Your task to perform on an android device: Search for vegetarian restaurants on Maps Image 0: 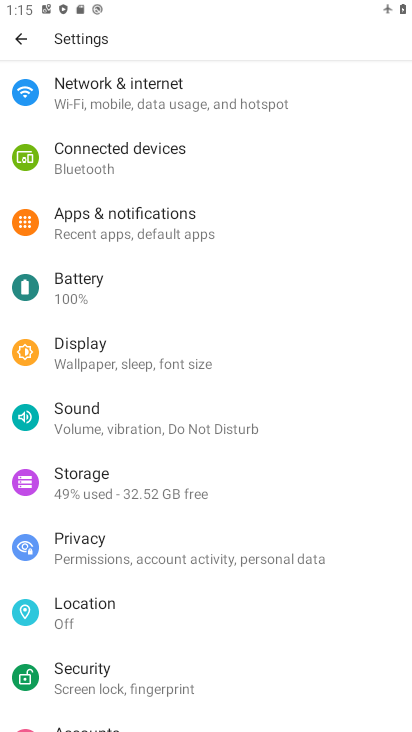
Step 0: press home button
Your task to perform on an android device: Search for vegetarian restaurants on Maps Image 1: 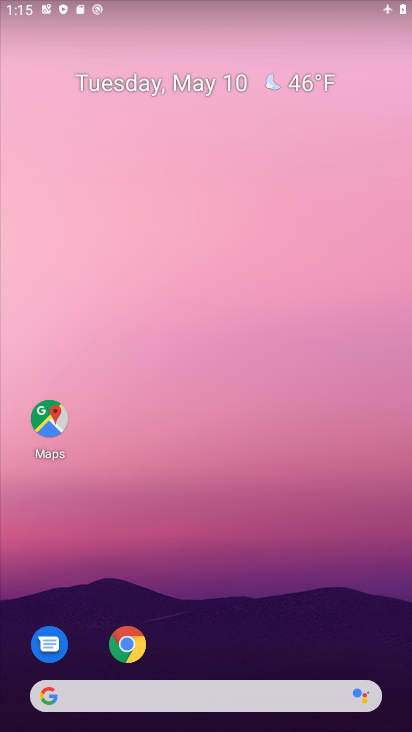
Step 1: drag from (300, 628) to (256, 138)
Your task to perform on an android device: Search for vegetarian restaurants on Maps Image 2: 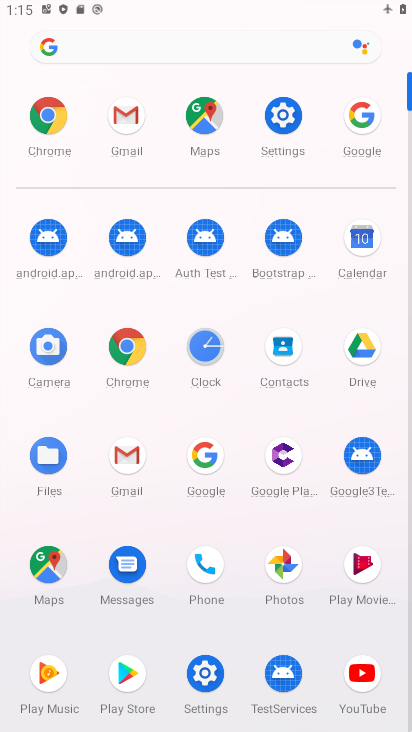
Step 2: drag from (164, 308) to (160, 138)
Your task to perform on an android device: Search for vegetarian restaurants on Maps Image 3: 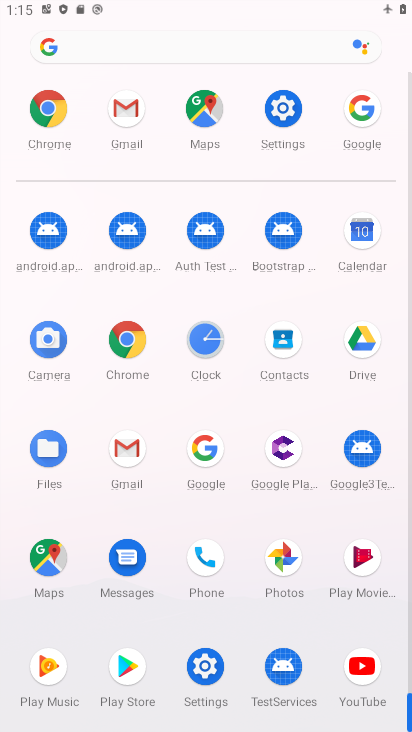
Step 3: click (58, 555)
Your task to perform on an android device: Search for vegetarian restaurants on Maps Image 4: 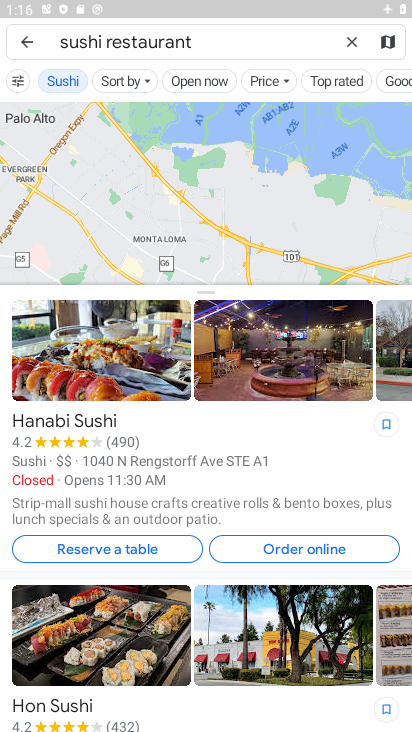
Step 4: click (361, 43)
Your task to perform on an android device: Search for vegetarian restaurants on Maps Image 5: 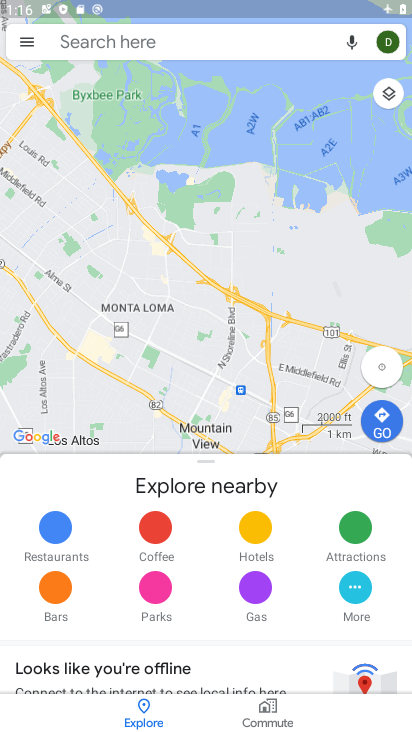
Step 5: click (259, 42)
Your task to perform on an android device: Search for vegetarian restaurants on Maps Image 6: 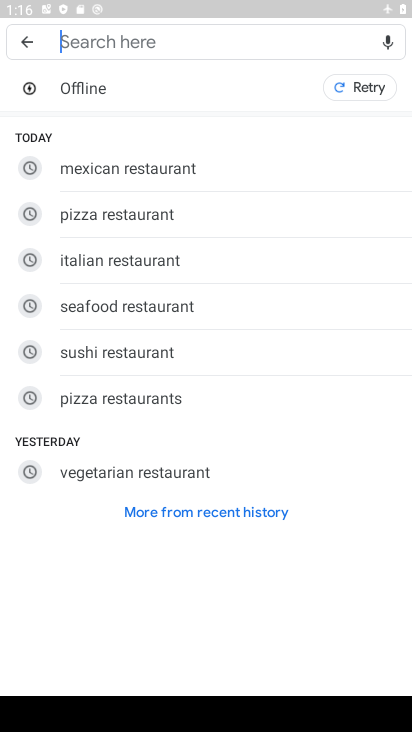
Step 6: click (155, 470)
Your task to perform on an android device: Search for vegetarian restaurants on Maps Image 7: 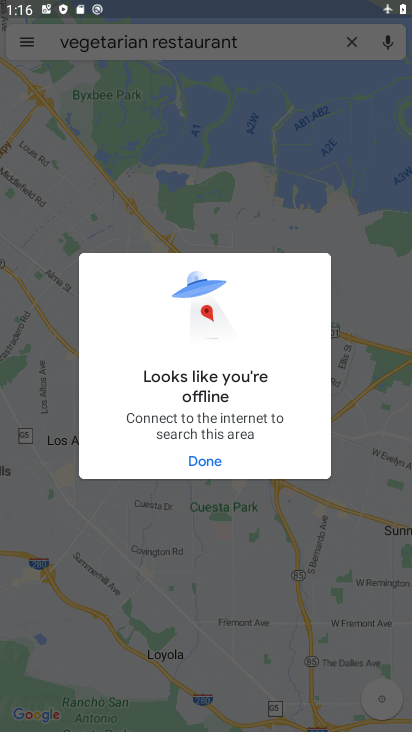
Step 7: click (193, 472)
Your task to perform on an android device: Search for vegetarian restaurants on Maps Image 8: 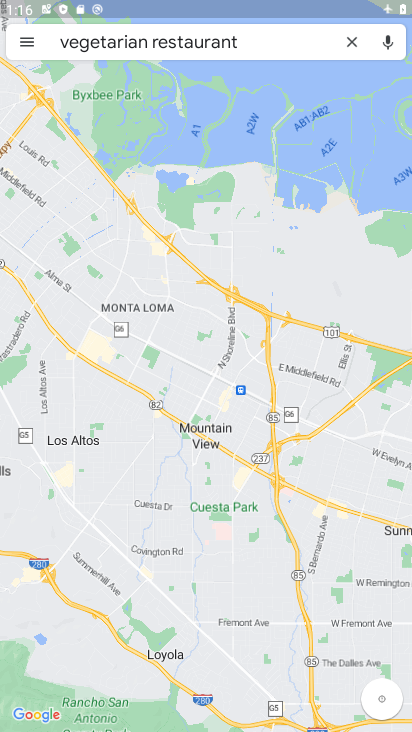
Step 8: task complete